Your task to perform on an android device: Clear the cart on bestbuy.com. Add razer huntsman to the cart on bestbuy.com, then select checkout. Image 0: 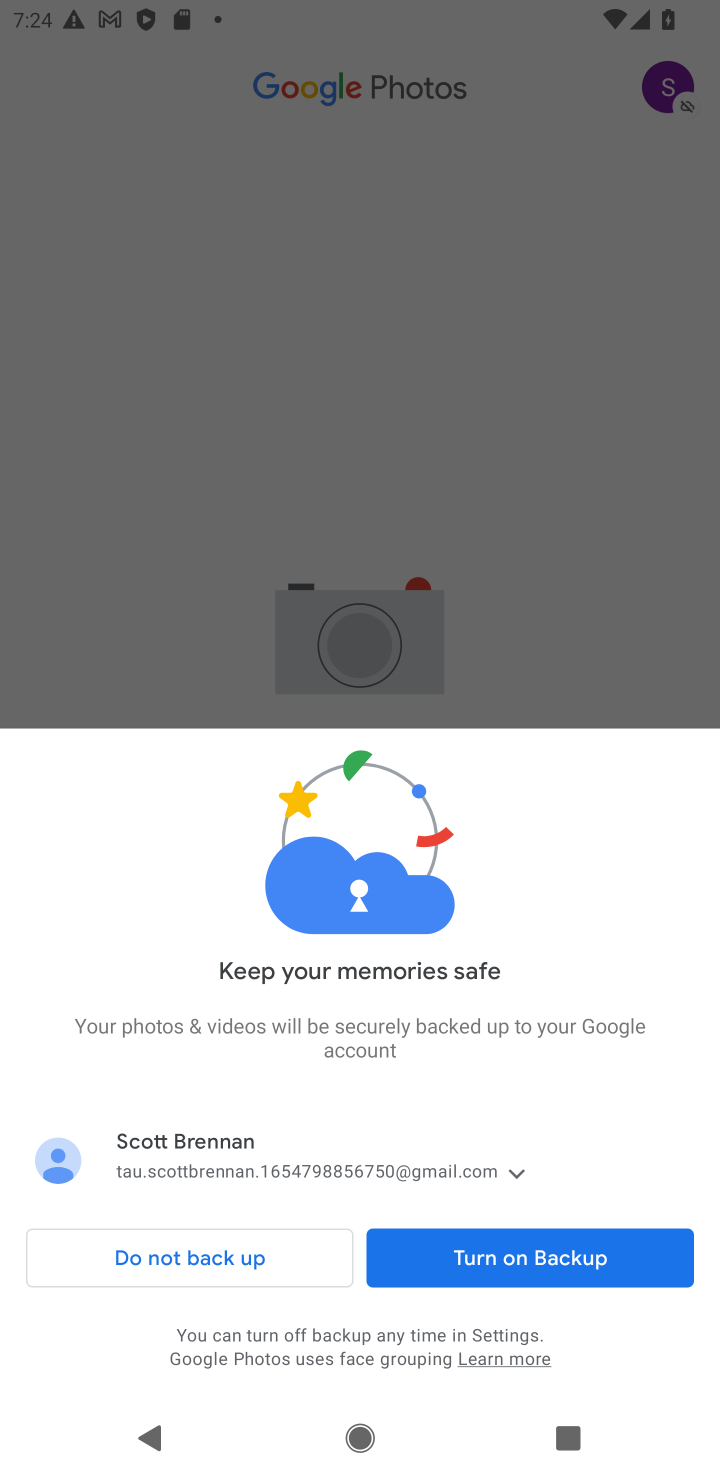
Step 0: press home button
Your task to perform on an android device: Clear the cart on bestbuy.com. Add razer huntsman to the cart on bestbuy.com, then select checkout. Image 1: 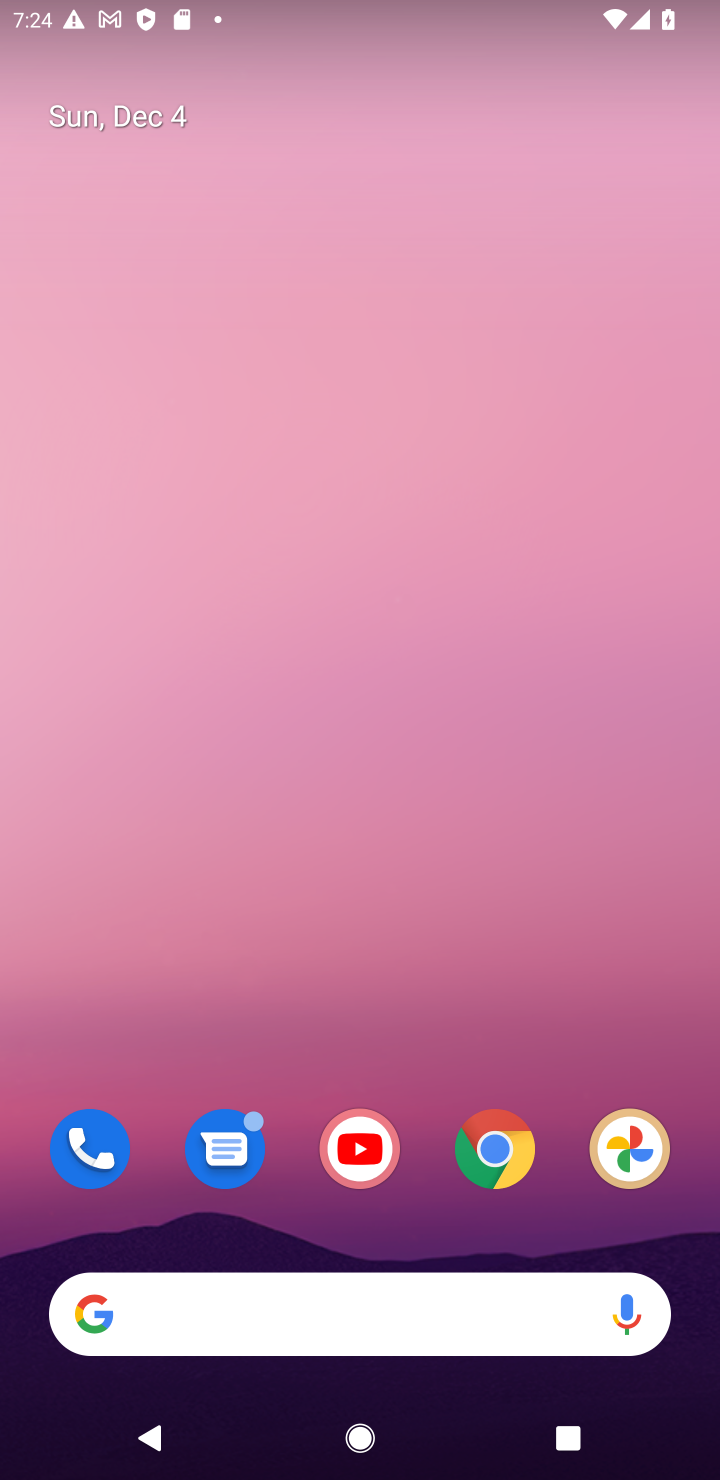
Step 1: drag from (372, 994) to (449, 408)
Your task to perform on an android device: Clear the cart on bestbuy.com. Add razer huntsman to the cart on bestbuy.com, then select checkout. Image 2: 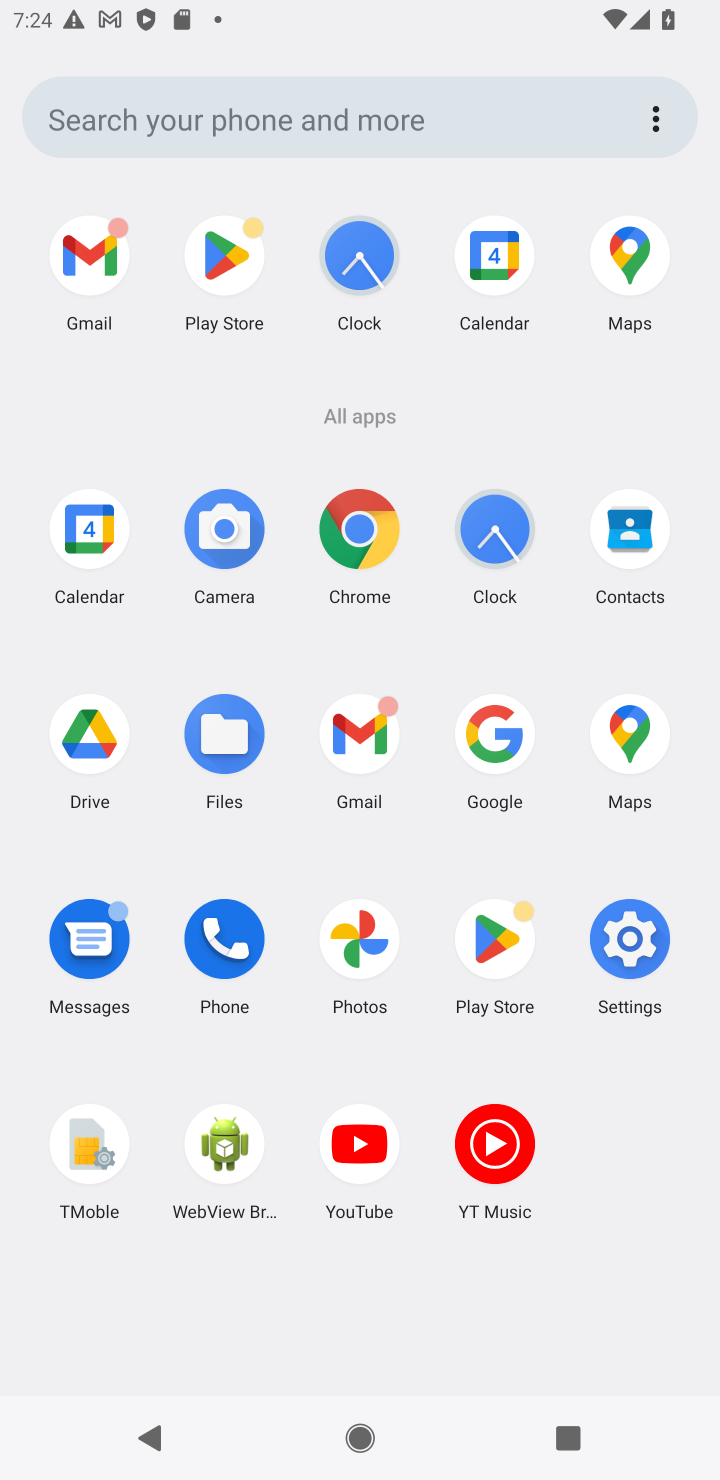
Step 2: click (493, 737)
Your task to perform on an android device: Clear the cart on bestbuy.com. Add razer huntsman to the cart on bestbuy.com, then select checkout. Image 3: 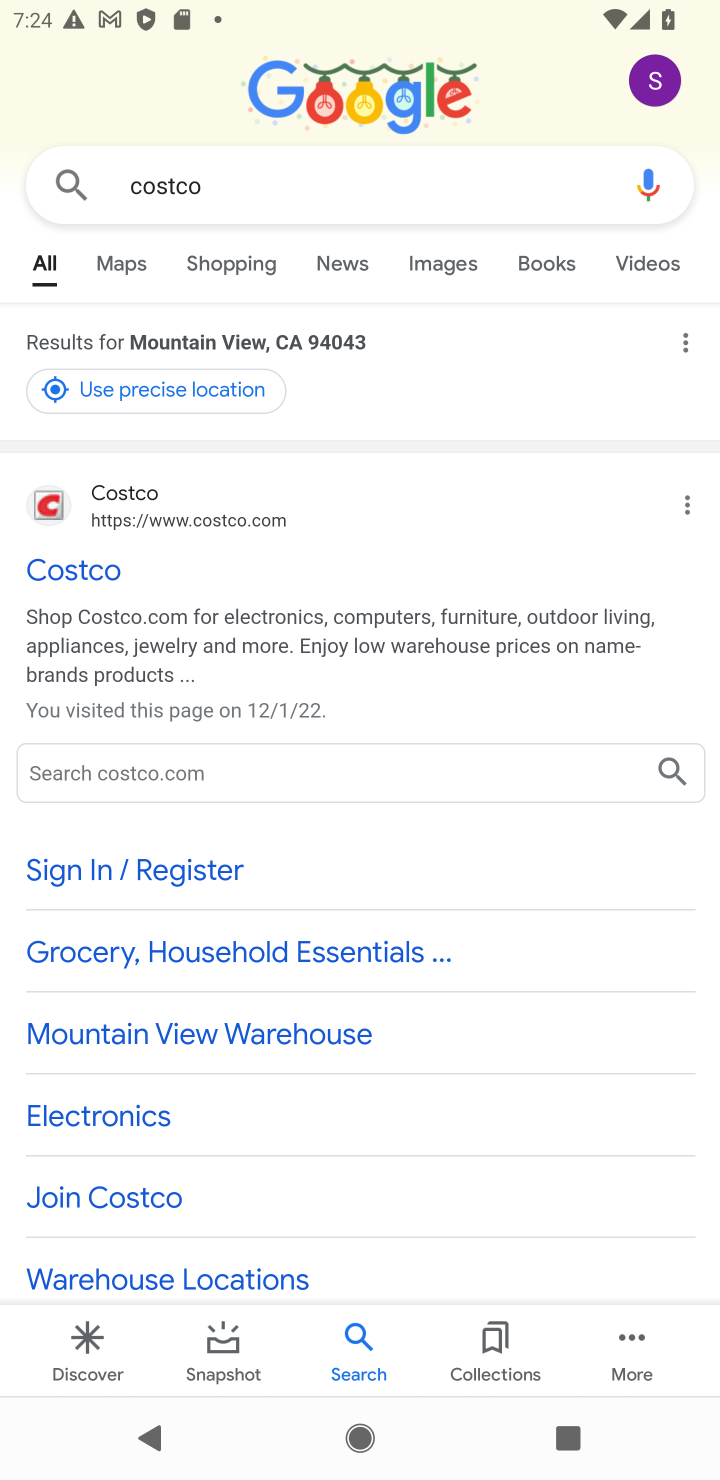
Step 3: click (218, 180)
Your task to perform on an android device: Clear the cart on bestbuy.com. Add razer huntsman to the cart on bestbuy.com, then select checkout. Image 4: 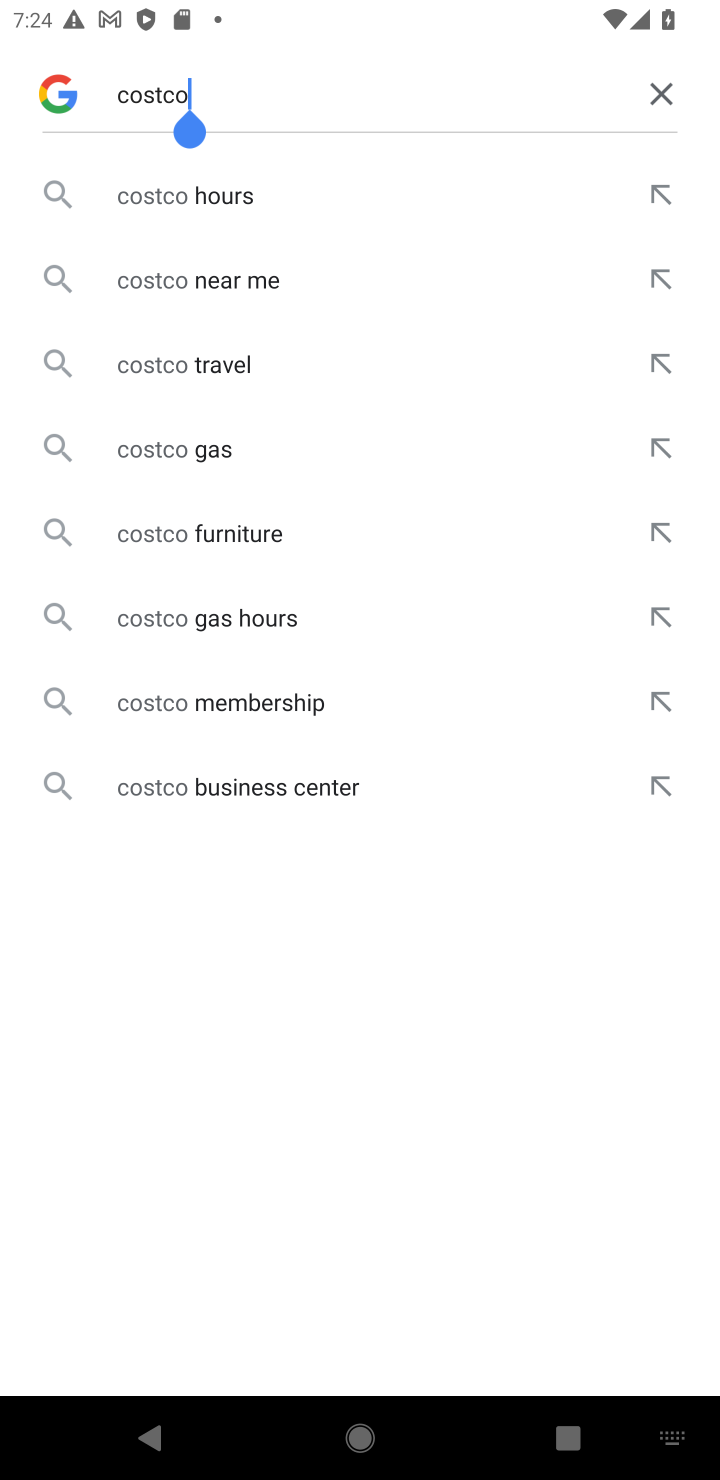
Step 4: click (661, 87)
Your task to perform on an android device: Clear the cart on bestbuy.com. Add razer huntsman to the cart on bestbuy.com, then select checkout. Image 5: 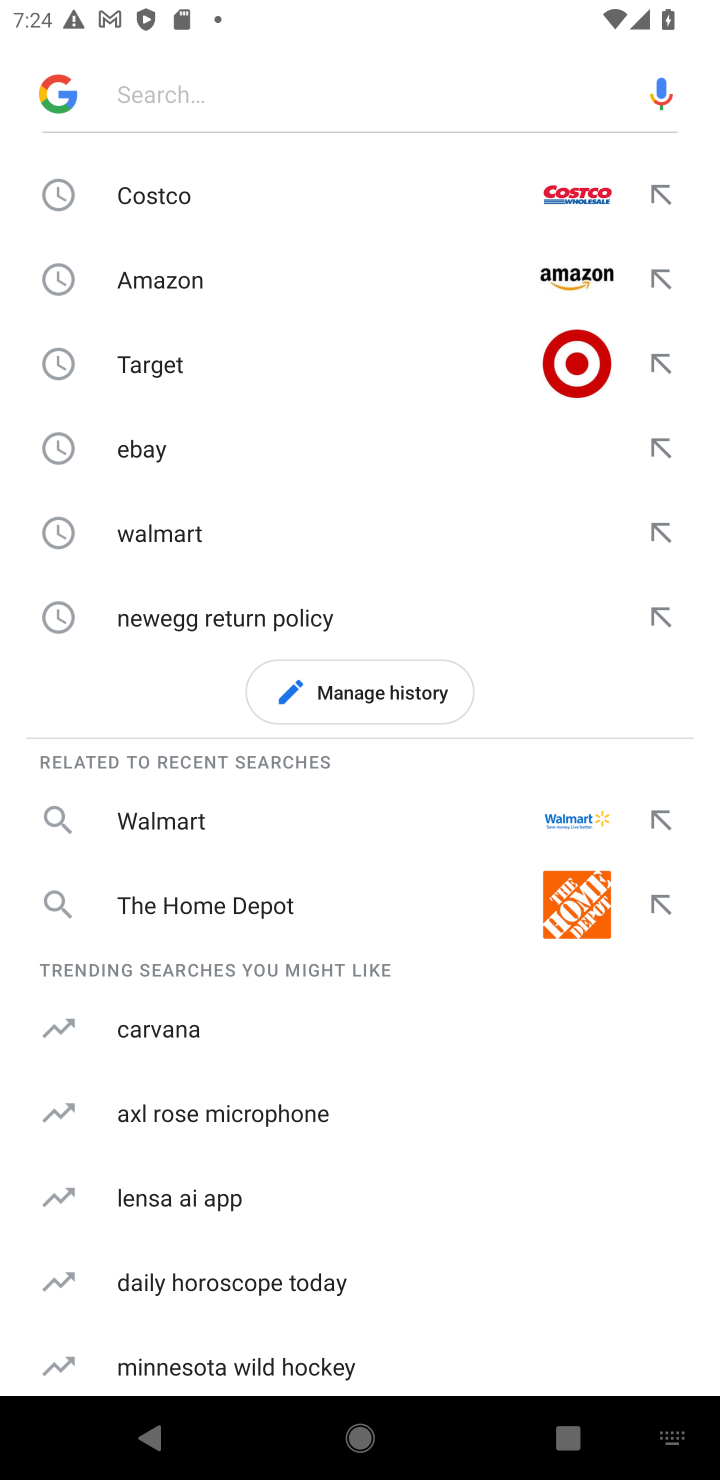
Step 5: type "bestbuy.com"
Your task to perform on an android device: Clear the cart on bestbuy.com. Add razer huntsman to the cart on bestbuy.com, then select checkout. Image 6: 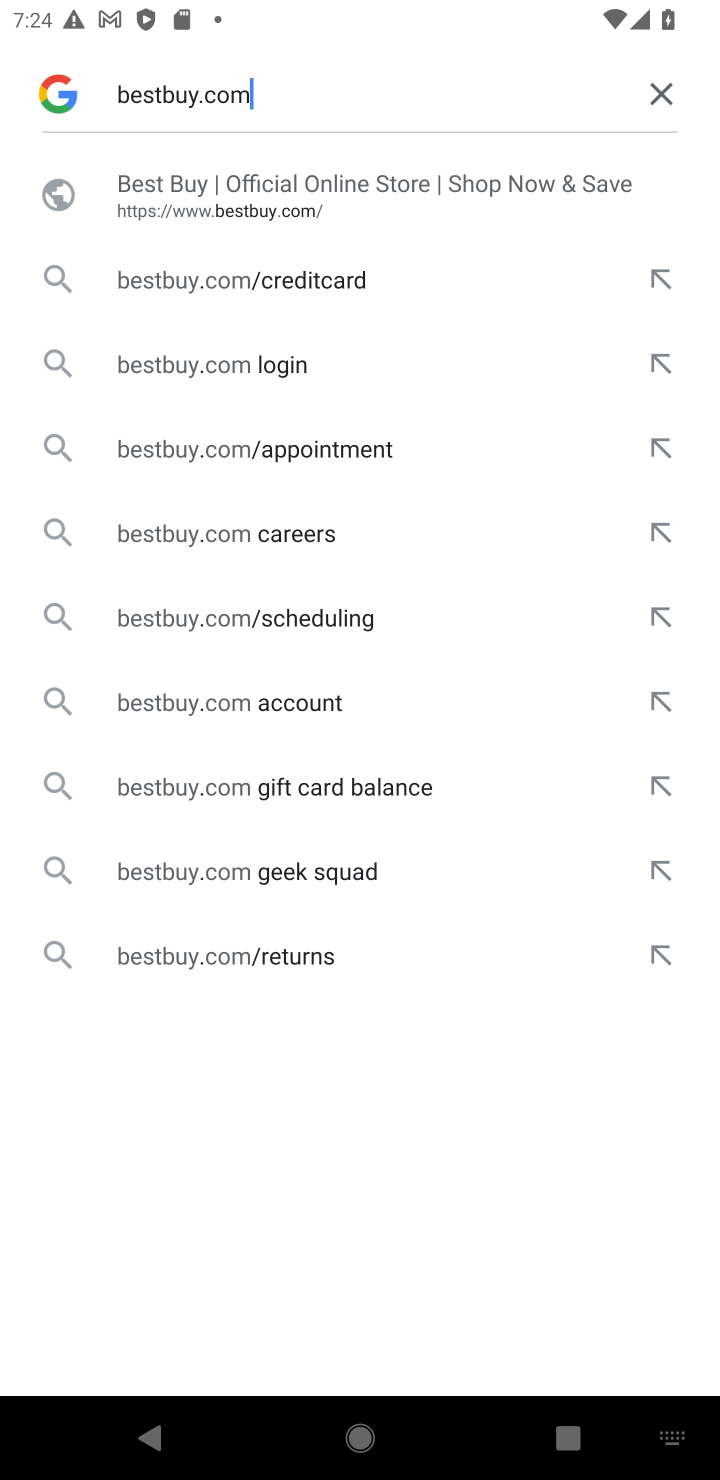
Step 6: click (185, 193)
Your task to perform on an android device: Clear the cart on bestbuy.com. Add razer huntsman to the cart on bestbuy.com, then select checkout. Image 7: 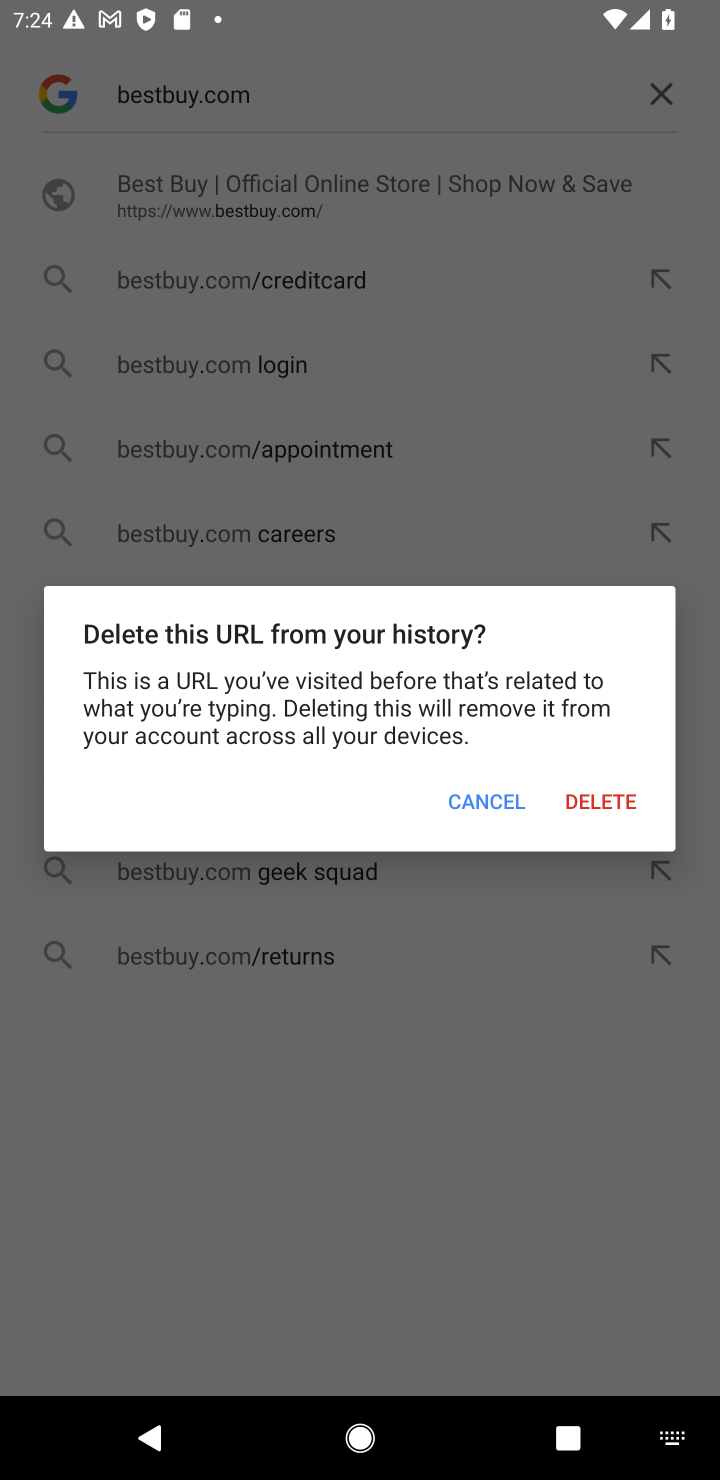
Step 7: click (495, 803)
Your task to perform on an android device: Clear the cart on bestbuy.com. Add razer huntsman to the cart on bestbuy.com, then select checkout. Image 8: 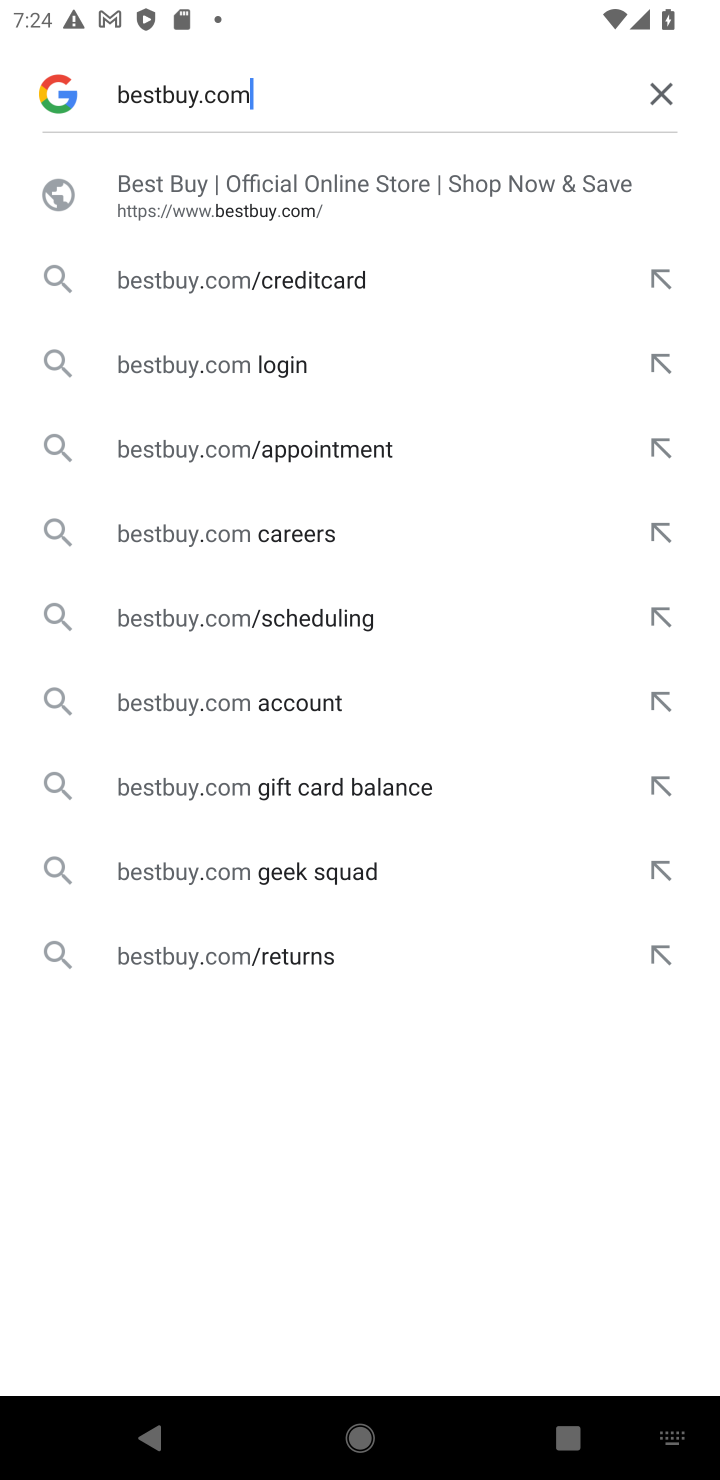
Step 8: click (178, 206)
Your task to perform on an android device: Clear the cart on bestbuy.com. Add razer huntsman to the cart on bestbuy.com, then select checkout. Image 9: 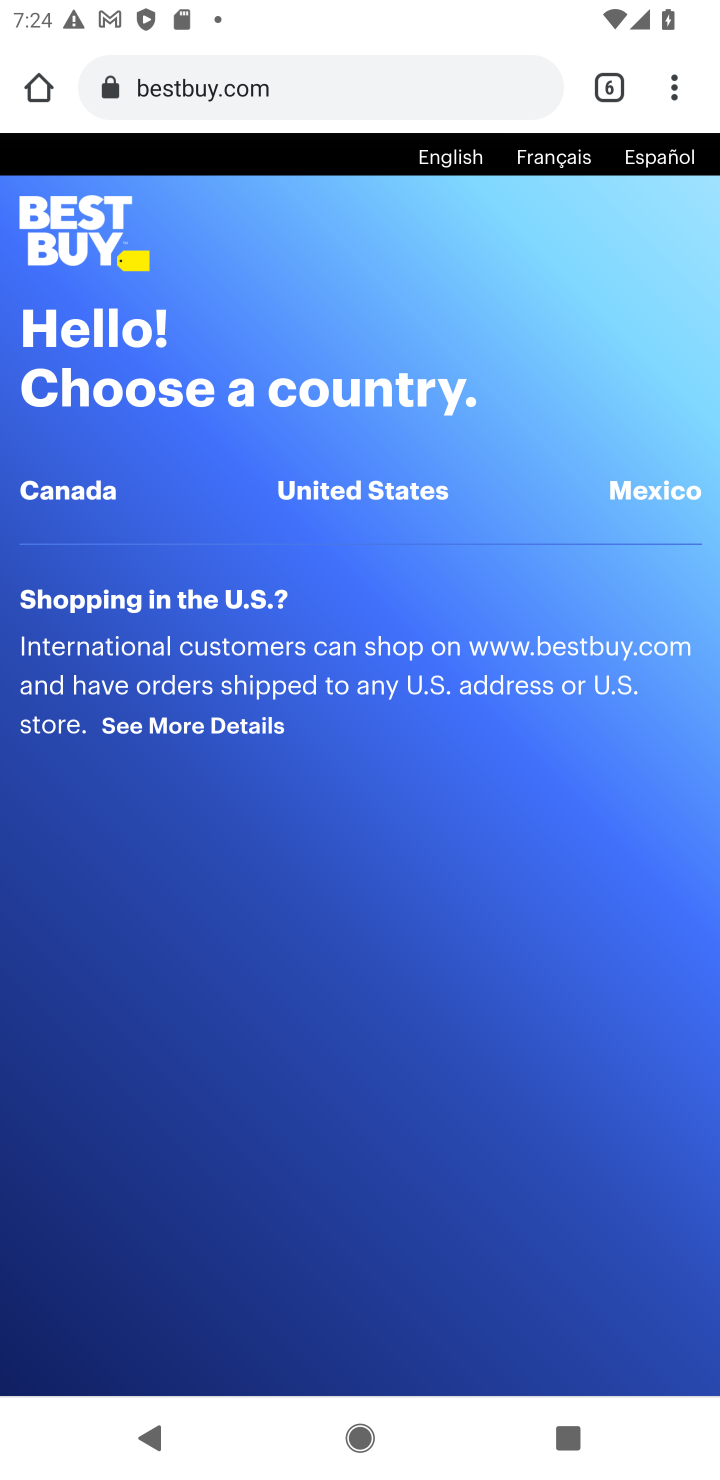
Step 9: click (389, 542)
Your task to perform on an android device: Clear the cart on bestbuy.com. Add razer huntsman to the cart on bestbuy.com, then select checkout. Image 10: 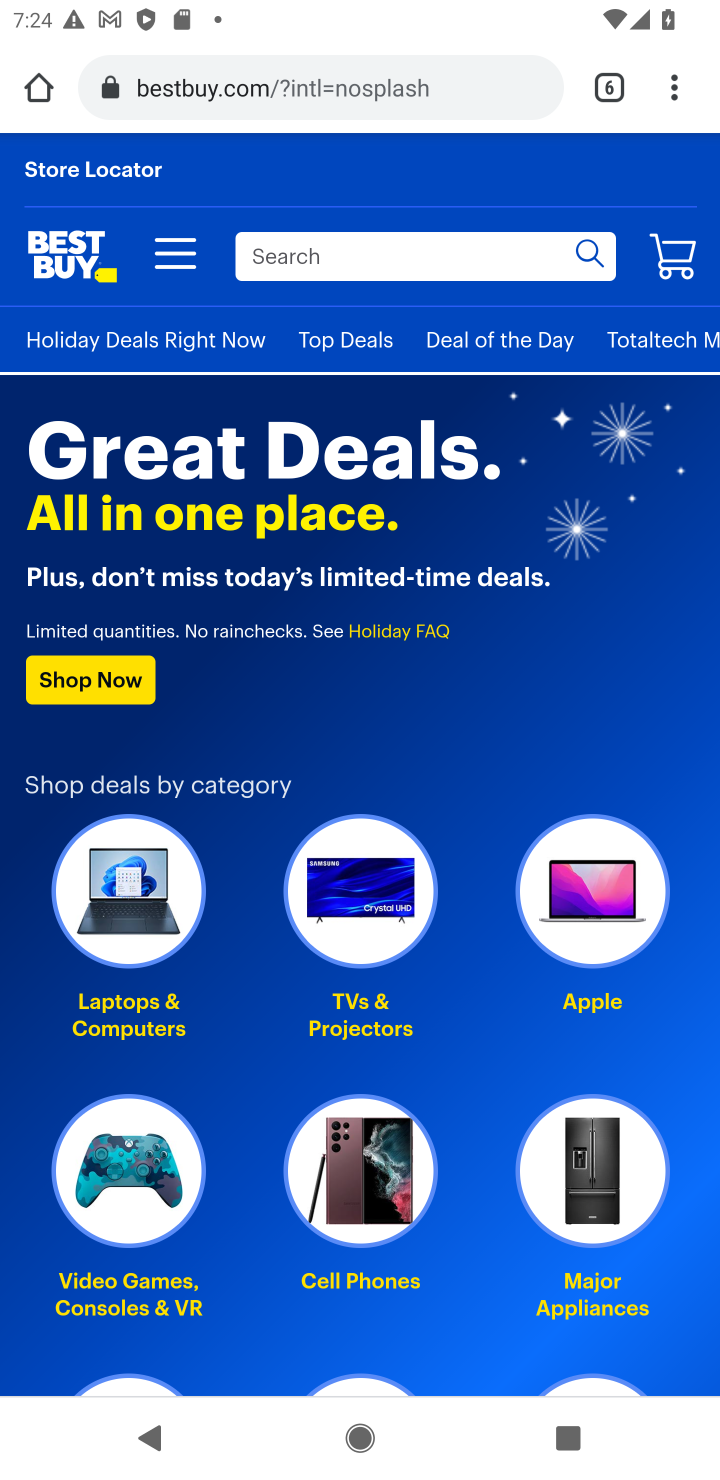
Step 10: click (278, 248)
Your task to perform on an android device: Clear the cart on bestbuy.com. Add razer huntsman to the cart on bestbuy.com, then select checkout. Image 11: 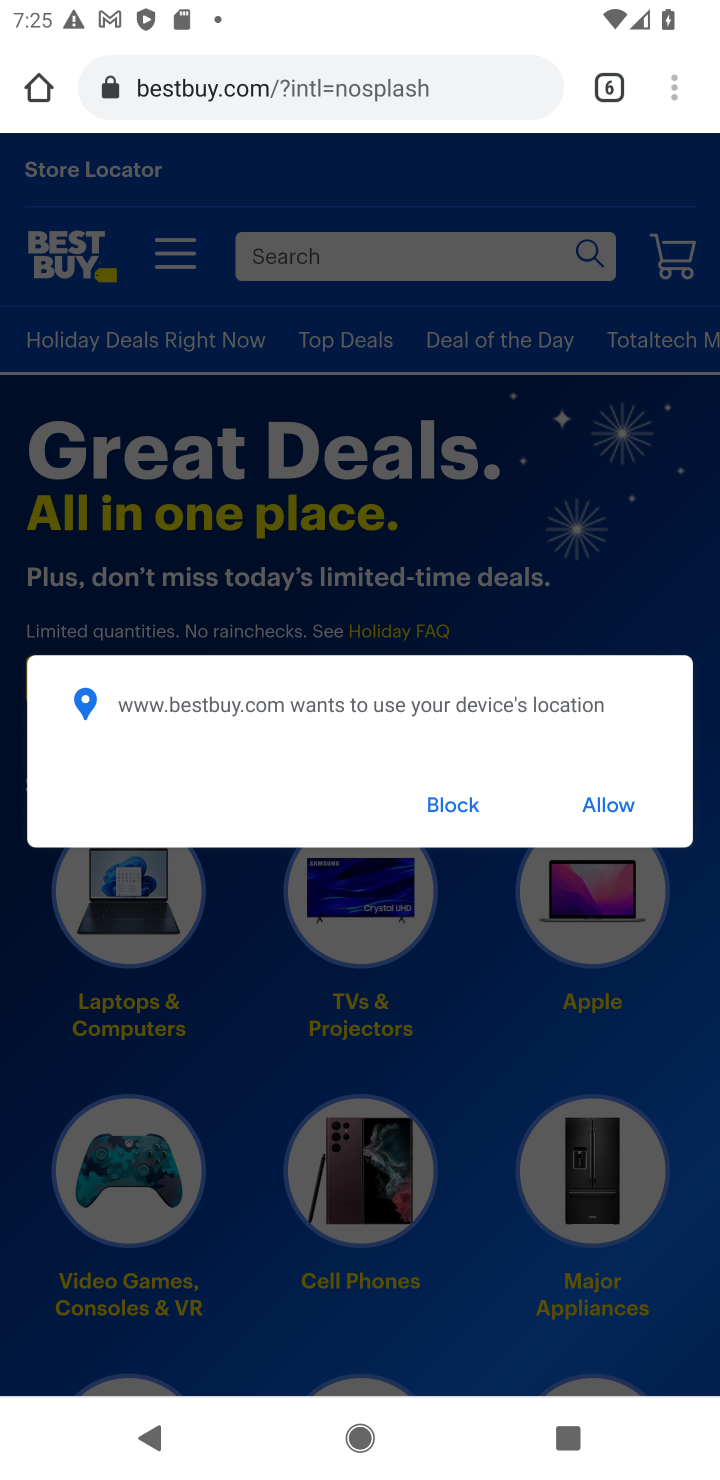
Step 11: click (445, 806)
Your task to perform on an android device: Clear the cart on bestbuy.com. Add razer huntsman to the cart on bestbuy.com, then select checkout. Image 12: 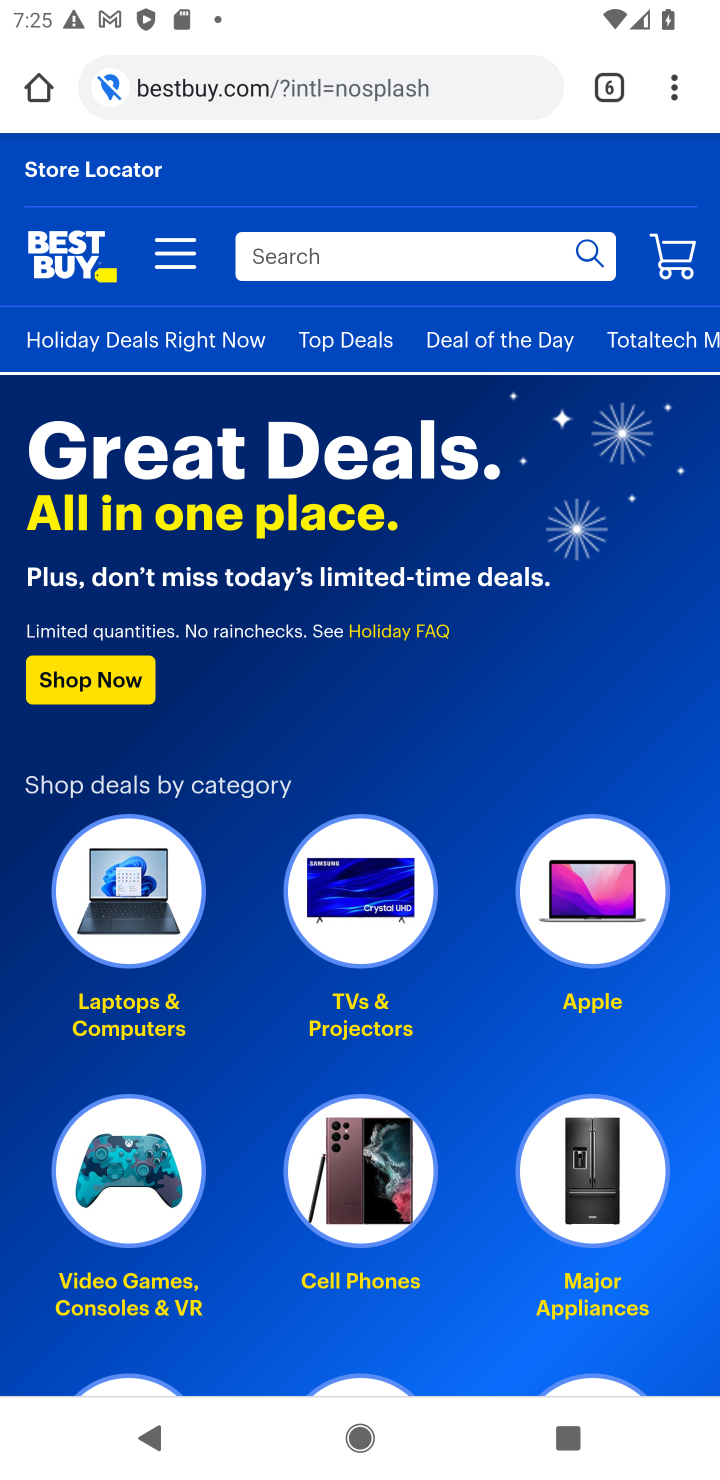
Step 12: click (349, 264)
Your task to perform on an android device: Clear the cart on bestbuy.com. Add razer huntsman to the cart on bestbuy.com, then select checkout. Image 13: 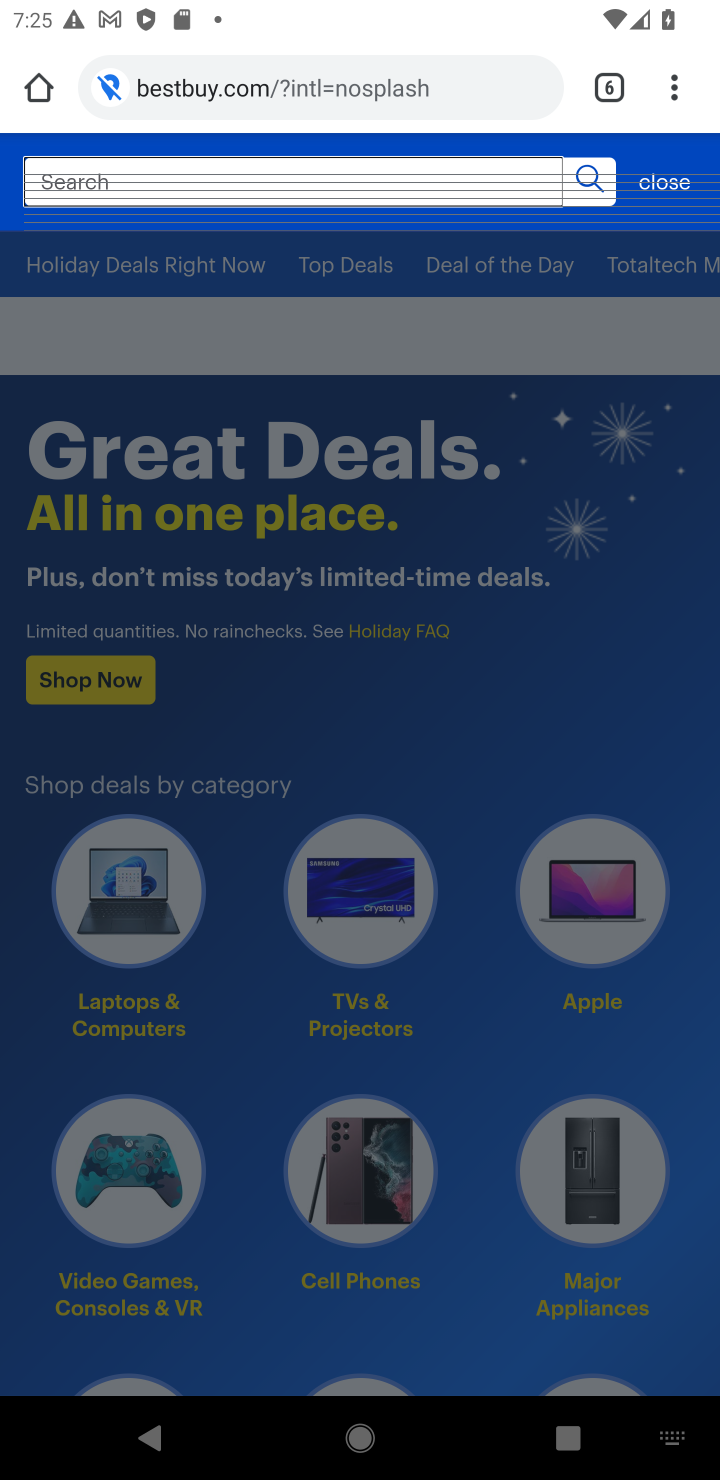
Step 13: type "azer huntsman"
Your task to perform on an android device: Clear the cart on bestbuy.com. Add razer huntsman to the cart on bestbuy.com, then select checkout. Image 14: 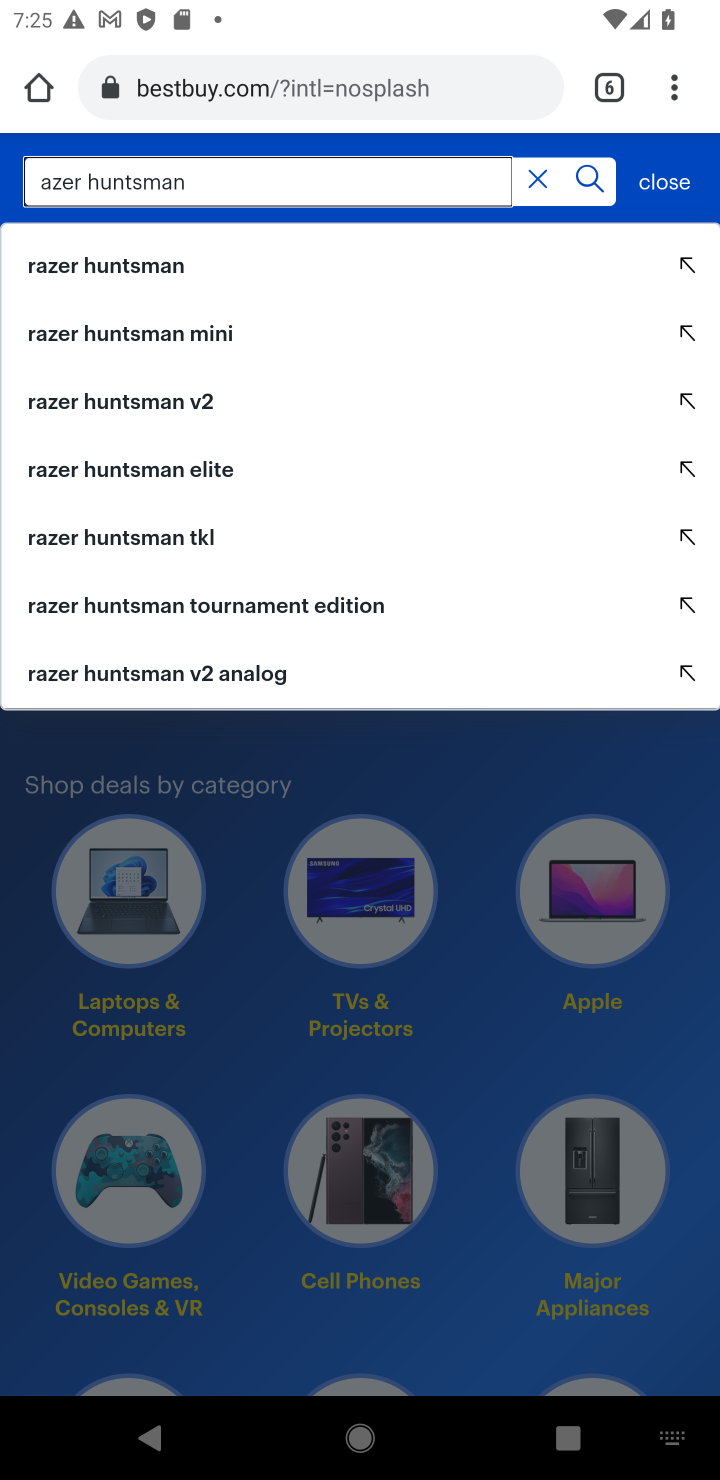
Step 14: click (129, 262)
Your task to perform on an android device: Clear the cart on bestbuy.com. Add razer huntsman to the cart on bestbuy.com, then select checkout. Image 15: 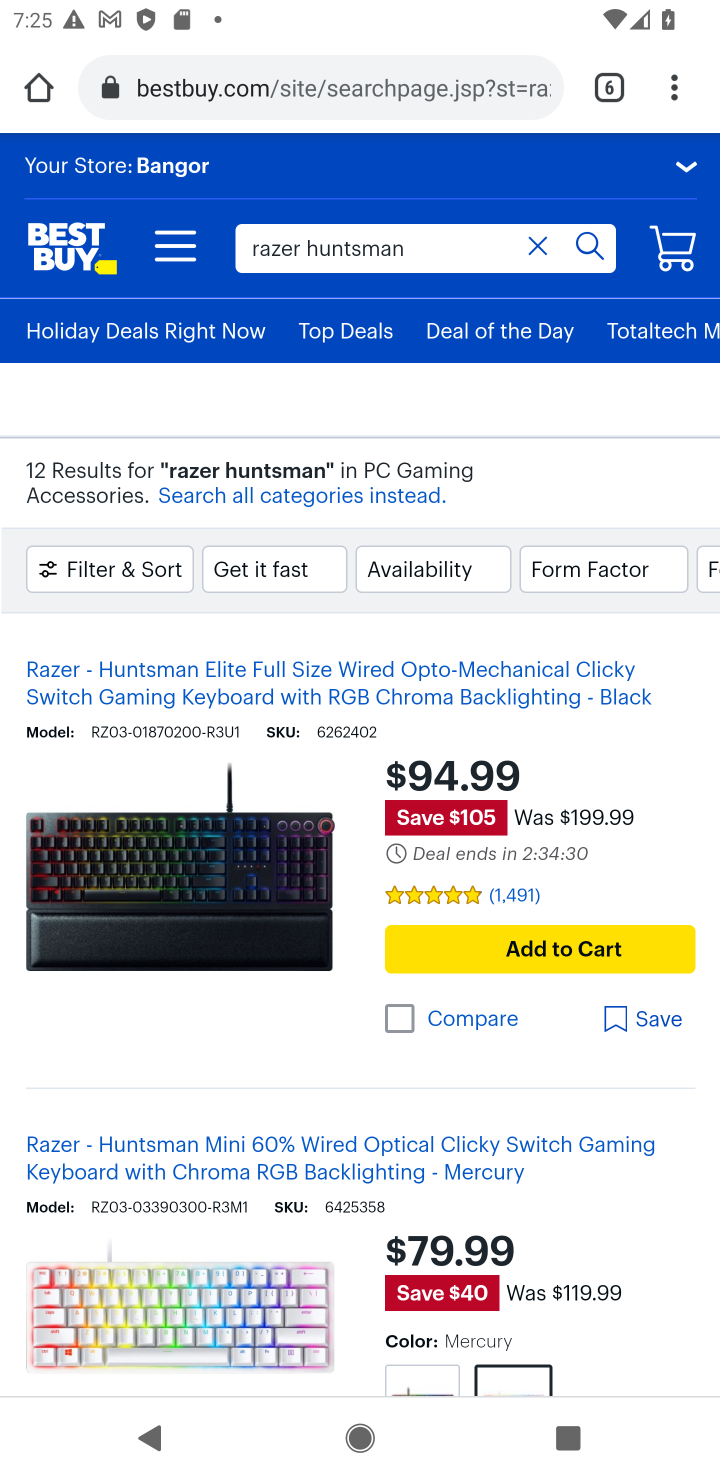
Step 15: click (511, 1036)
Your task to perform on an android device: Clear the cart on bestbuy.com. Add razer huntsman to the cart on bestbuy.com, then select checkout. Image 16: 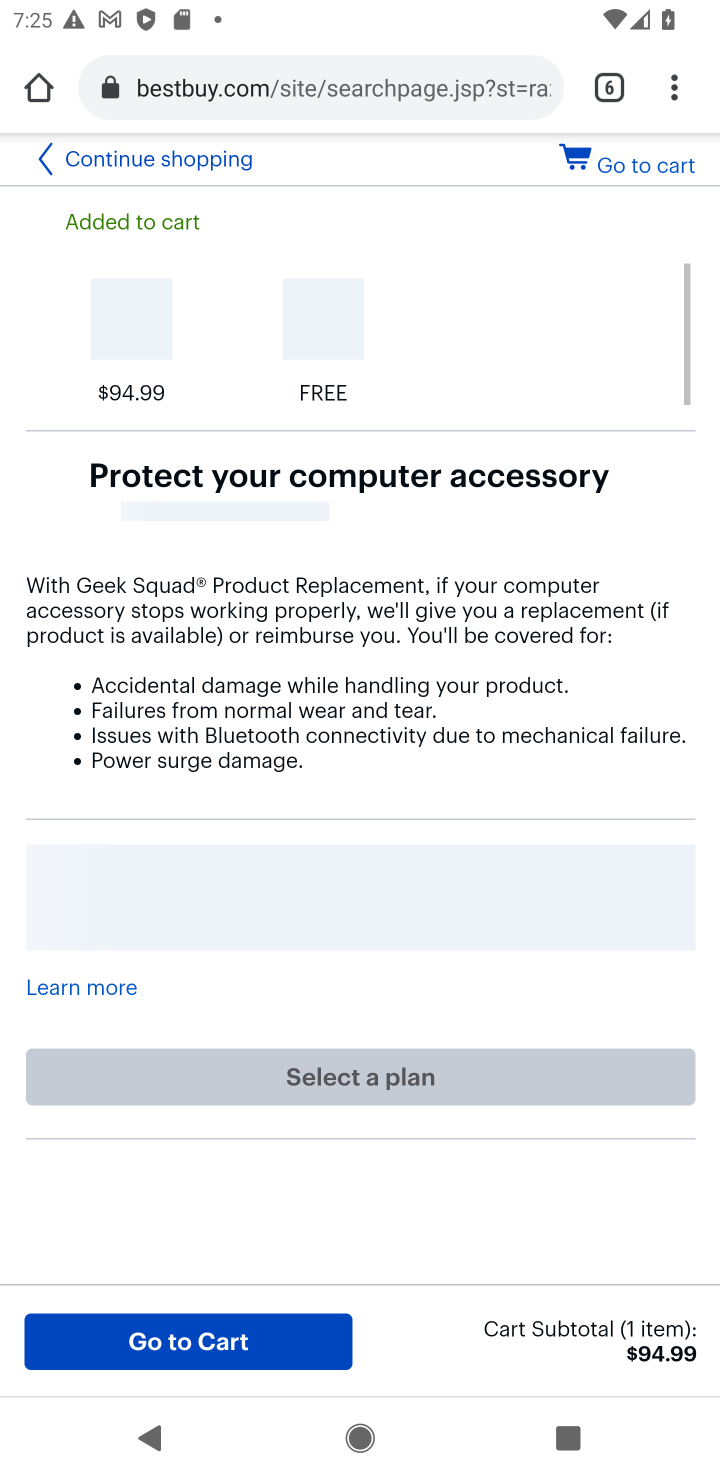
Step 16: click (261, 1328)
Your task to perform on an android device: Clear the cart on bestbuy.com. Add razer huntsman to the cart on bestbuy.com, then select checkout. Image 17: 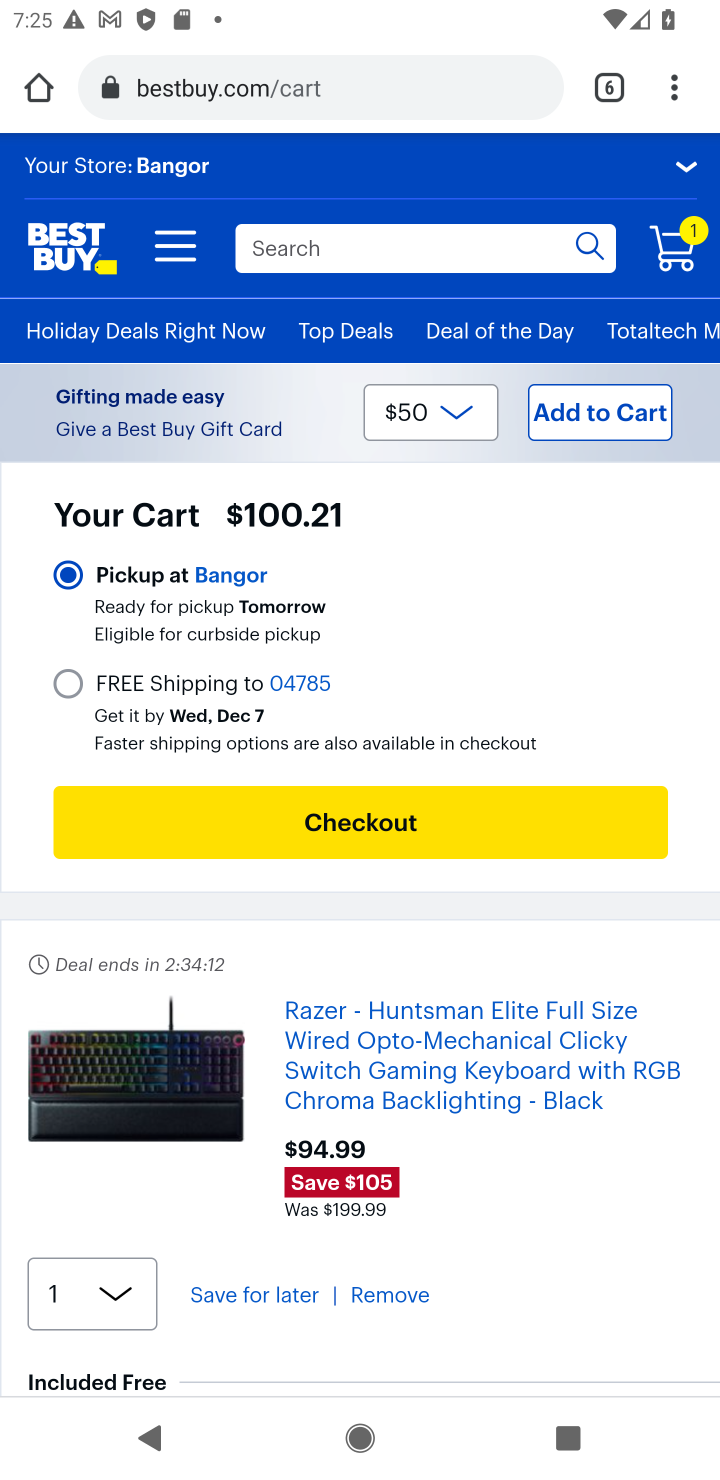
Step 17: click (437, 822)
Your task to perform on an android device: Clear the cart on bestbuy.com. Add razer huntsman to the cart on bestbuy.com, then select checkout. Image 18: 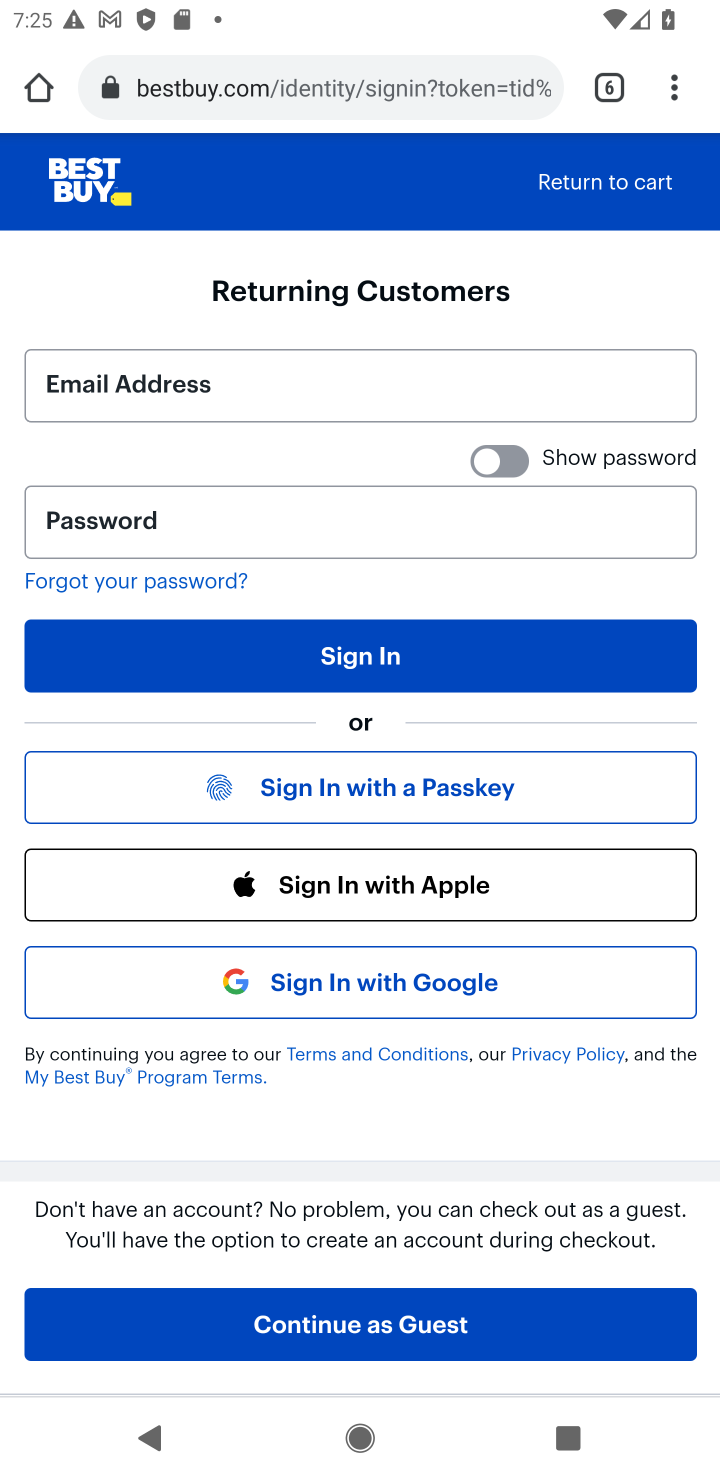
Step 18: task complete